Your task to perform on an android device: Go to wifi settings Image 0: 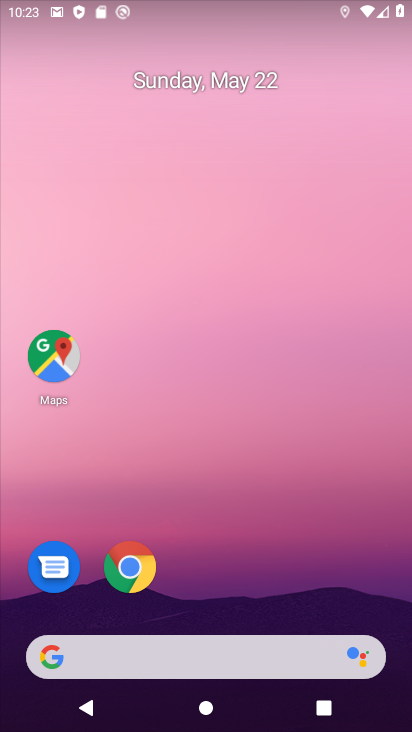
Step 0: click (281, 71)
Your task to perform on an android device: Go to wifi settings Image 1: 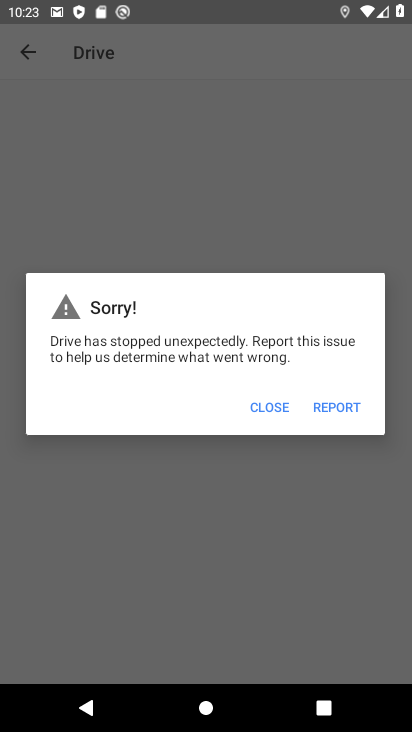
Step 1: press home button
Your task to perform on an android device: Go to wifi settings Image 2: 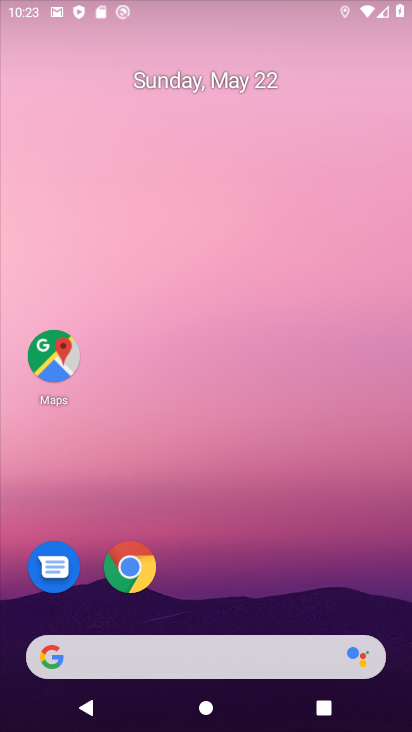
Step 2: drag from (380, 590) to (321, 181)
Your task to perform on an android device: Go to wifi settings Image 3: 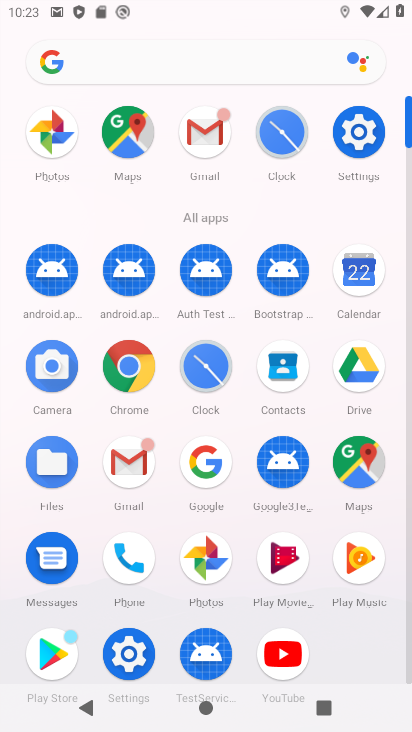
Step 3: click (373, 129)
Your task to perform on an android device: Go to wifi settings Image 4: 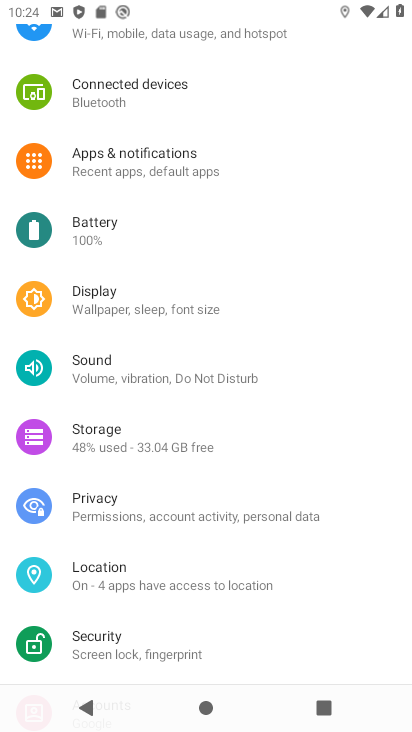
Step 4: drag from (306, 141) to (263, 488)
Your task to perform on an android device: Go to wifi settings Image 5: 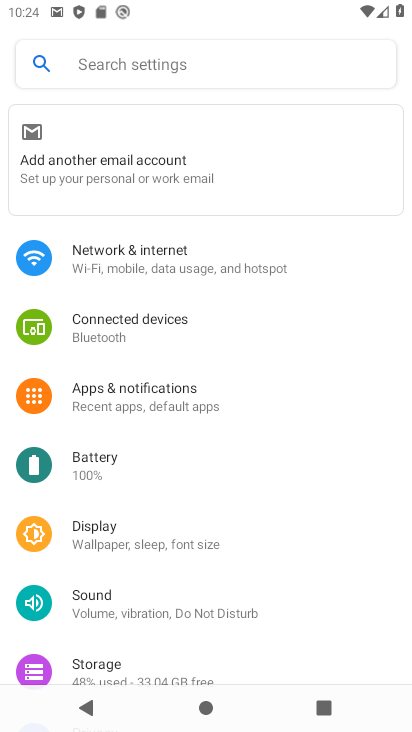
Step 5: click (212, 245)
Your task to perform on an android device: Go to wifi settings Image 6: 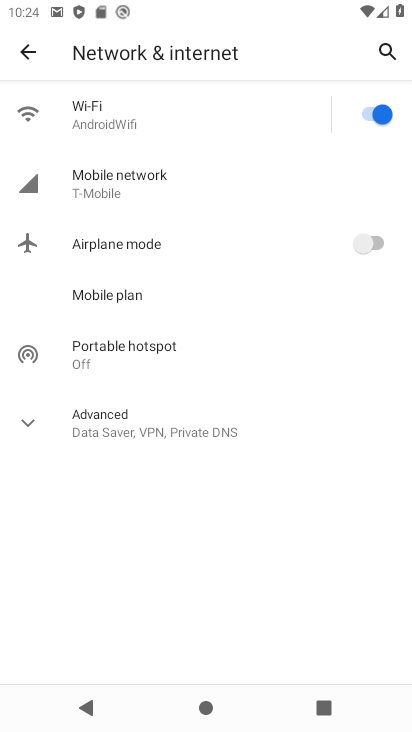
Step 6: click (225, 130)
Your task to perform on an android device: Go to wifi settings Image 7: 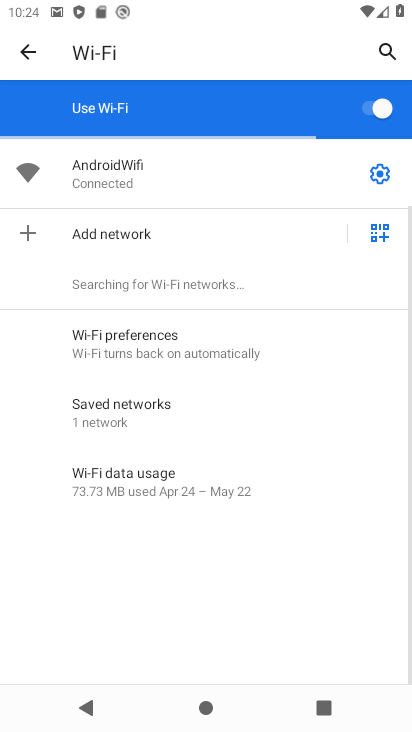
Step 7: click (377, 179)
Your task to perform on an android device: Go to wifi settings Image 8: 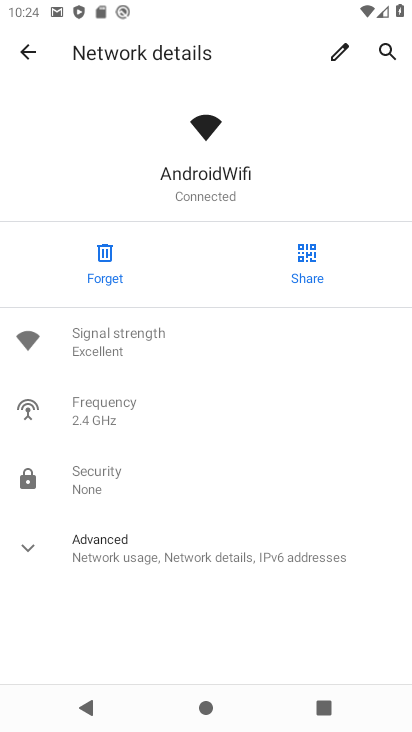
Step 8: task complete